Your task to perform on an android device: turn on improve location accuracy Image 0: 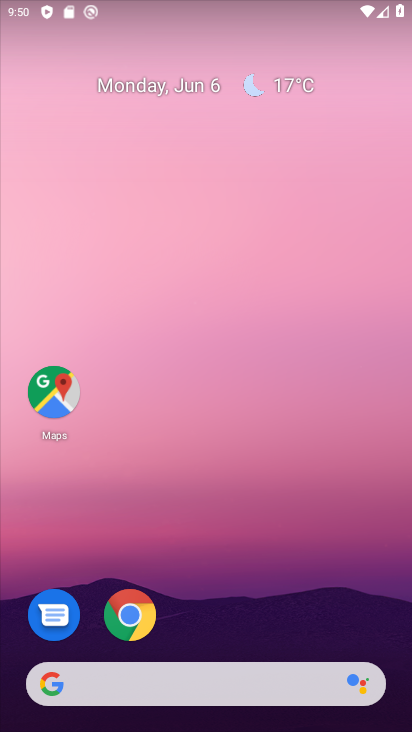
Step 0: press home button
Your task to perform on an android device: turn on improve location accuracy Image 1: 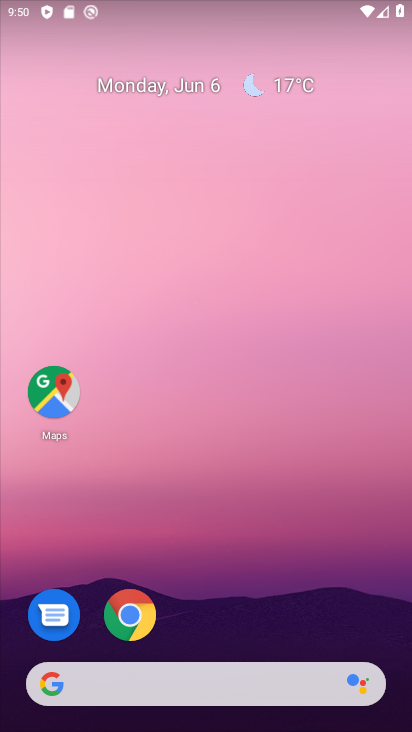
Step 1: drag from (220, 635) to (212, 116)
Your task to perform on an android device: turn on improve location accuracy Image 2: 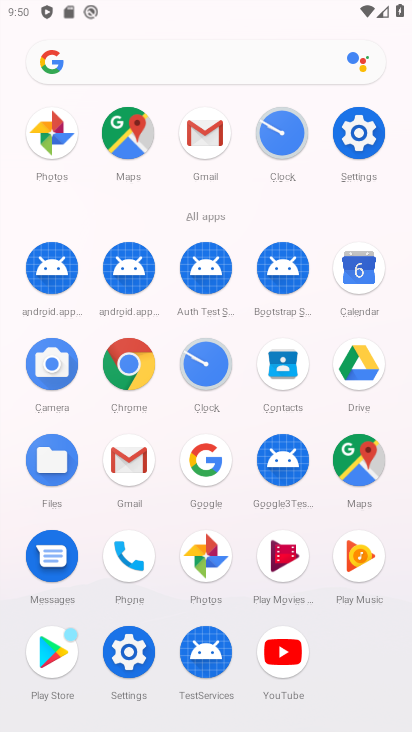
Step 2: click (129, 647)
Your task to perform on an android device: turn on improve location accuracy Image 3: 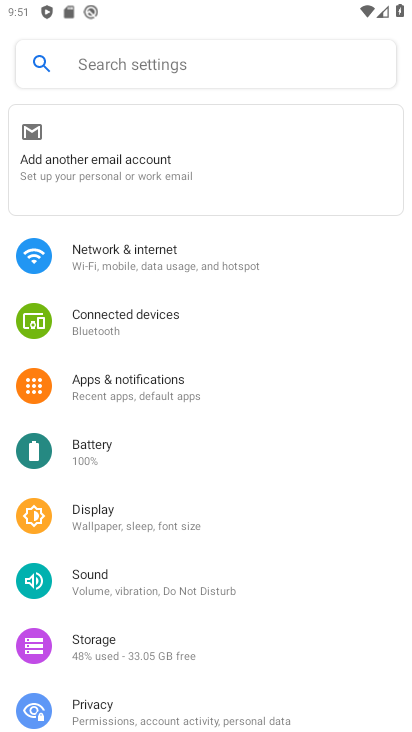
Step 3: drag from (167, 657) to (190, 402)
Your task to perform on an android device: turn on improve location accuracy Image 4: 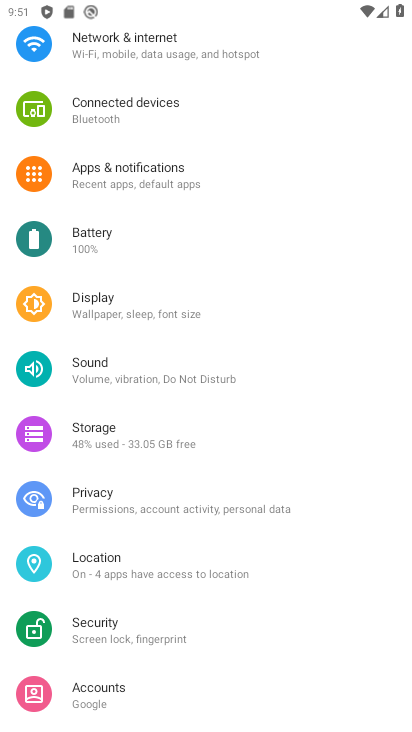
Step 4: click (128, 549)
Your task to perform on an android device: turn on improve location accuracy Image 5: 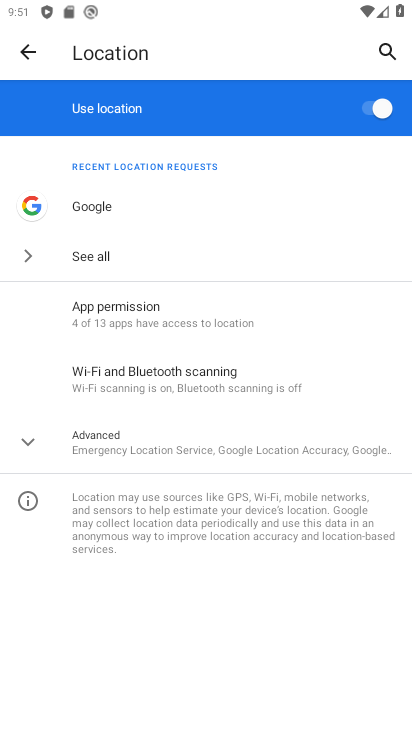
Step 5: click (129, 435)
Your task to perform on an android device: turn on improve location accuracy Image 6: 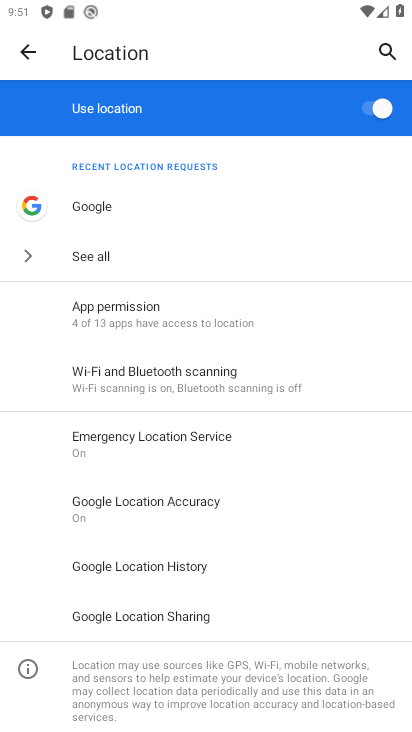
Step 6: click (180, 509)
Your task to perform on an android device: turn on improve location accuracy Image 7: 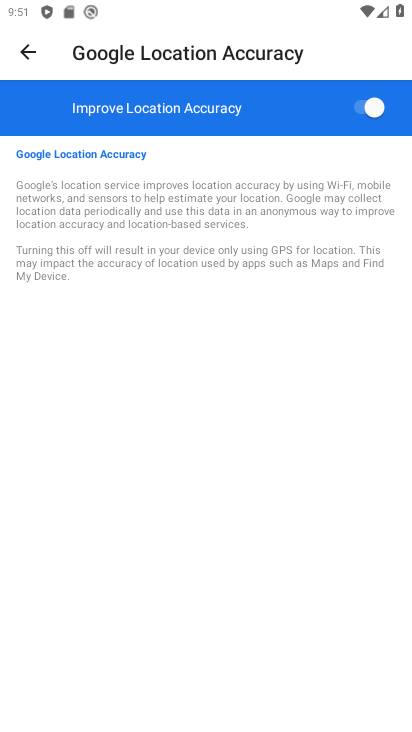
Step 7: task complete